Your task to perform on an android device: see creations saved in the google photos Image 0: 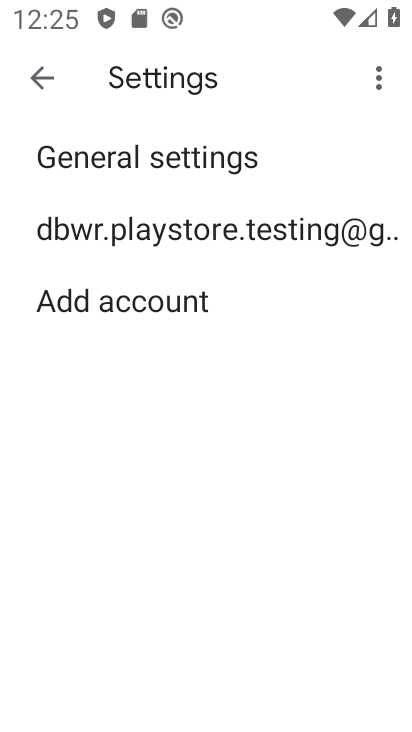
Step 0: press back button
Your task to perform on an android device: see creations saved in the google photos Image 1: 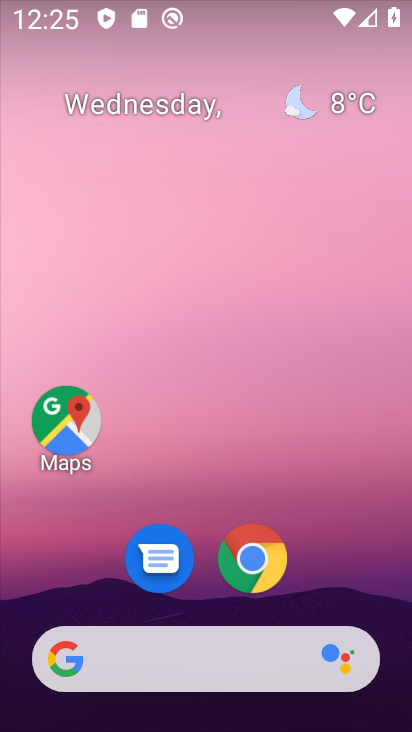
Step 1: drag from (342, 549) to (272, 42)
Your task to perform on an android device: see creations saved in the google photos Image 2: 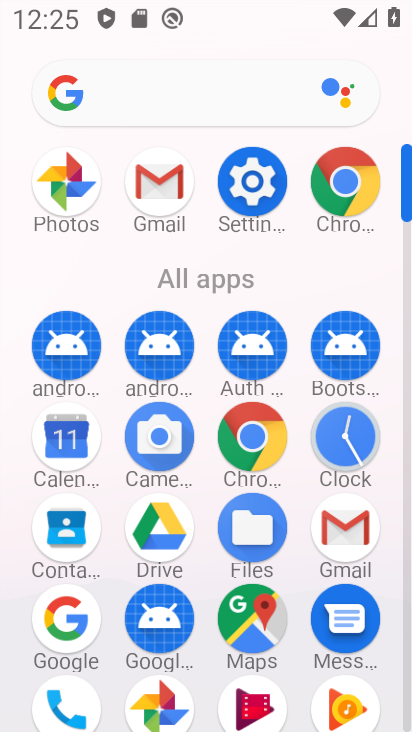
Step 2: drag from (9, 601) to (4, 285)
Your task to perform on an android device: see creations saved in the google photos Image 3: 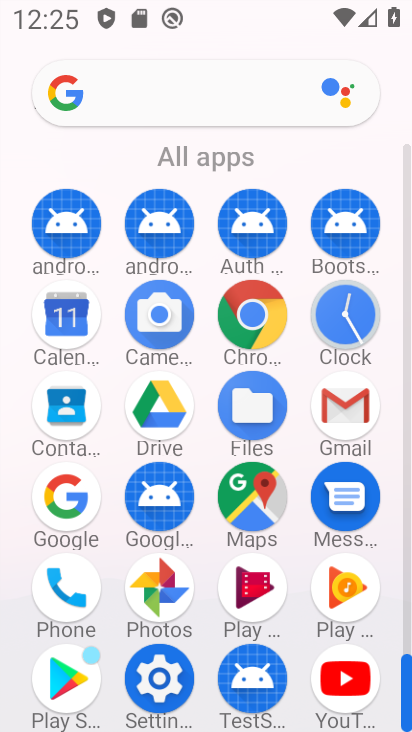
Step 3: click (152, 579)
Your task to perform on an android device: see creations saved in the google photos Image 4: 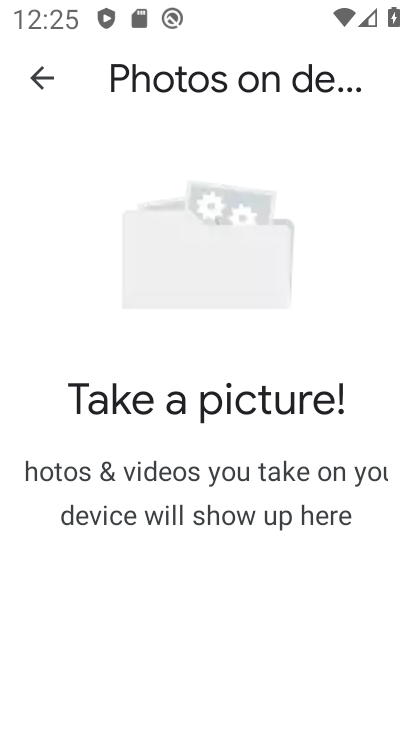
Step 4: click (32, 66)
Your task to perform on an android device: see creations saved in the google photos Image 5: 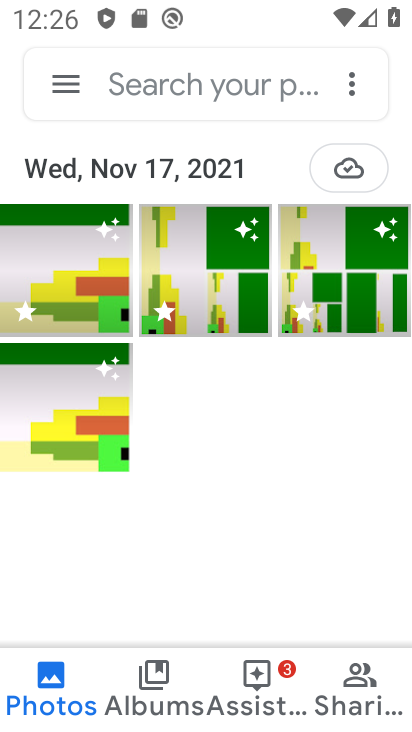
Step 5: task complete